Your task to perform on an android device: toggle translation in the chrome app Image 0: 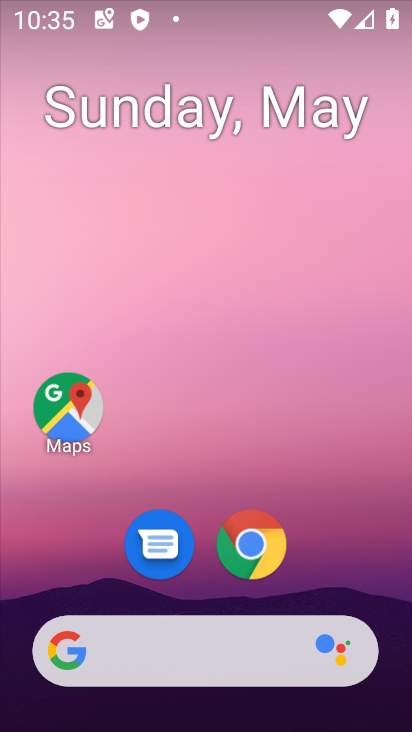
Step 0: drag from (390, 540) to (397, 220)
Your task to perform on an android device: toggle translation in the chrome app Image 1: 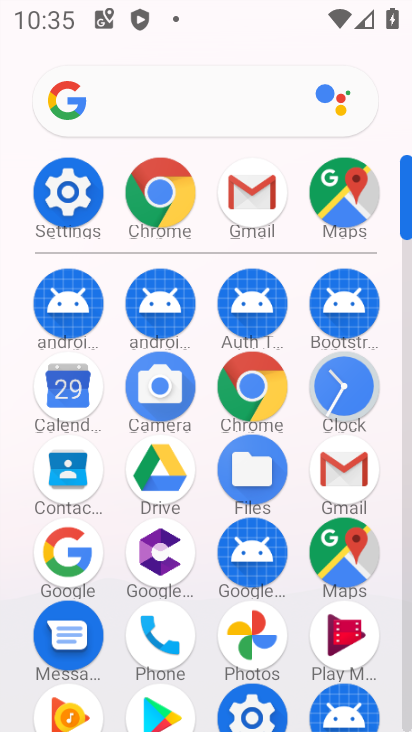
Step 1: click (273, 390)
Your task to perform on an android device: toggle translation in the chrome app Image 2: 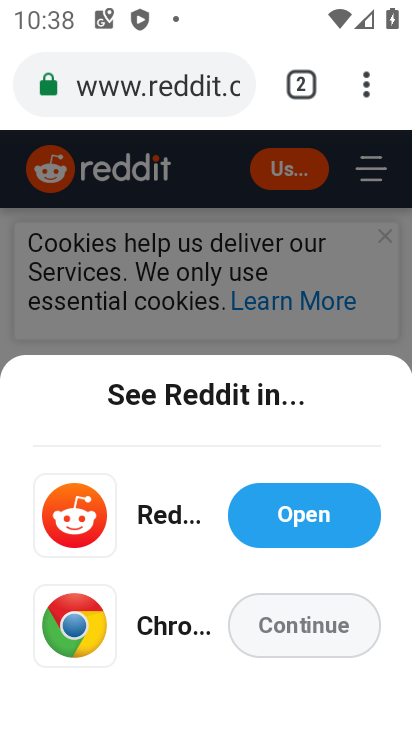
Step 2: press home button
Your task to perform on an android device: toggle translation in the chrome app Image 3: 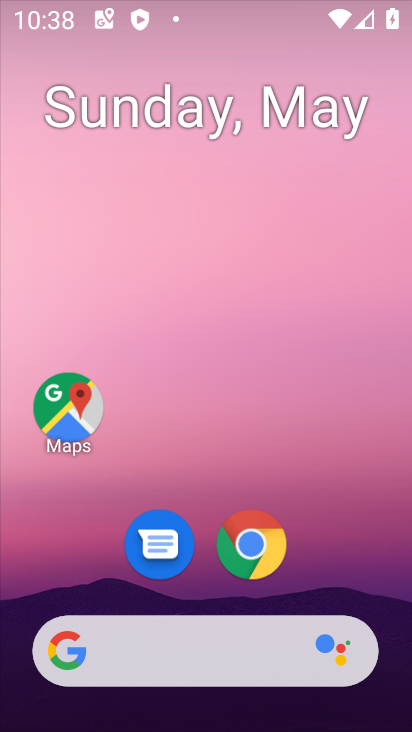
Step 3: drag from (399, 526) to (384, 5)
Your task to perform on an android device: toggle translation in the chrome app Image 4: 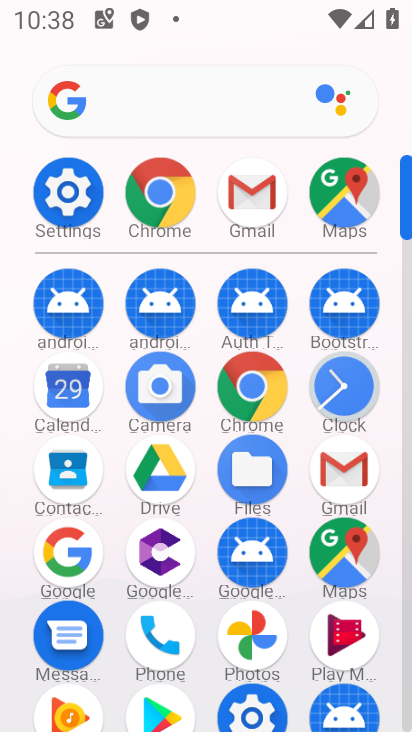
Step 4: click (176, 202)
Your task to perform on an android device: toggle translation in the chrome app Image 5: 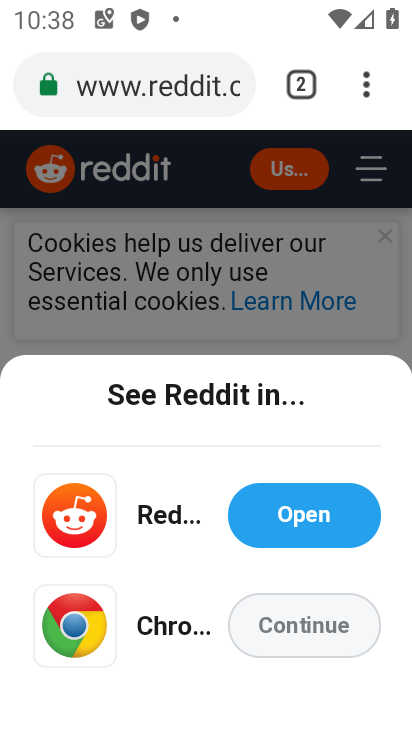
Step 5: drag from (373, 88) to (231, 582)
Your task to perform on an android device: toggle translation in the chrome app Image 6: 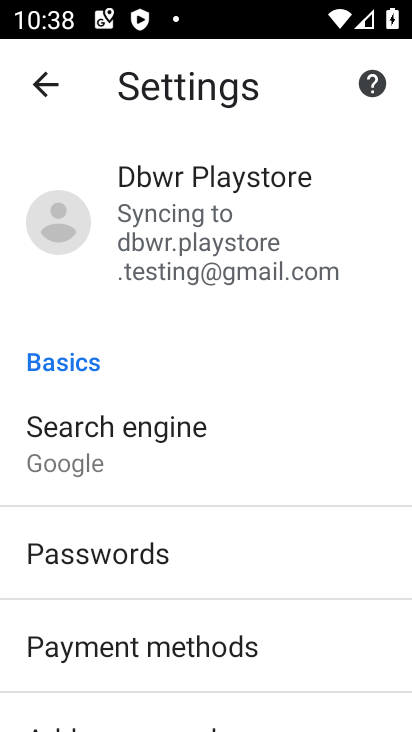
Step 6: drag from (285, 601) to (256, 15)
Your task to perform on an android device: toggle translation in the chrome app Image 7: 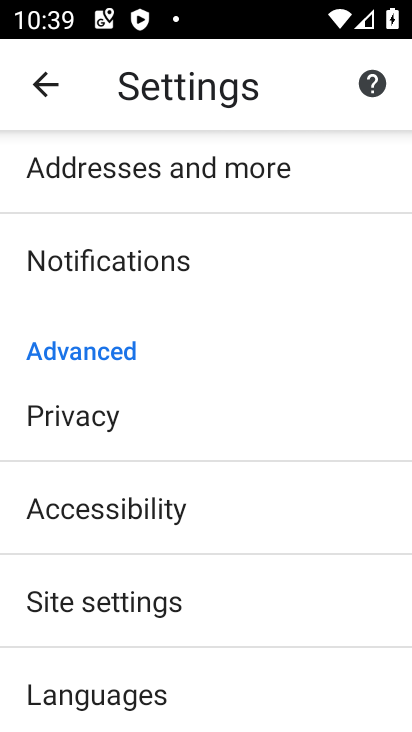
Step 7: drag from (249, 611) to (234, 152)
Your task to perform on an android device: toggle translation in the chrome app Image 8: 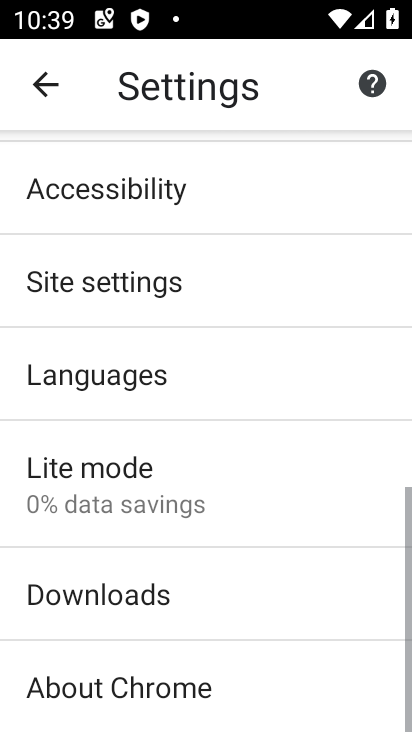
Step 8: click (201, 388)
Your task to perform on an android device: toggle translation in the chrome app Image 9: 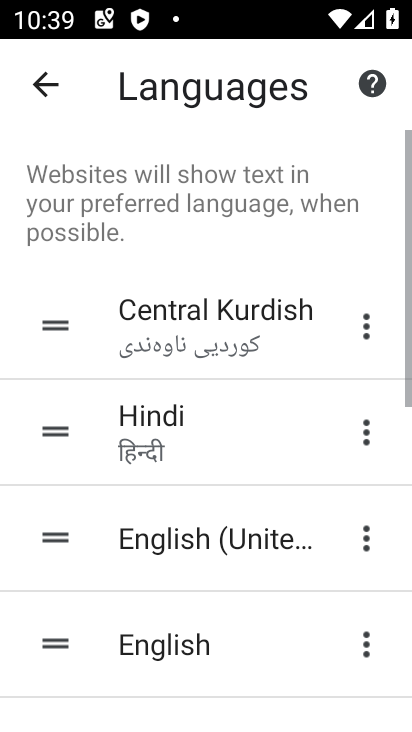
Step 9: drag from (242, 552) to (222, 159)
Your task to perform on an android device: toggle translation in the chrome app Image 10: 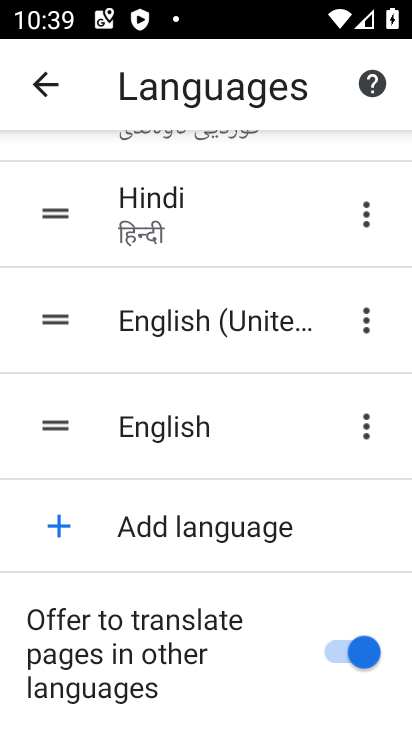
Step 10: click (346, 645)
Your task to perform on an android device: toggle translation in the chrome app Image 11: 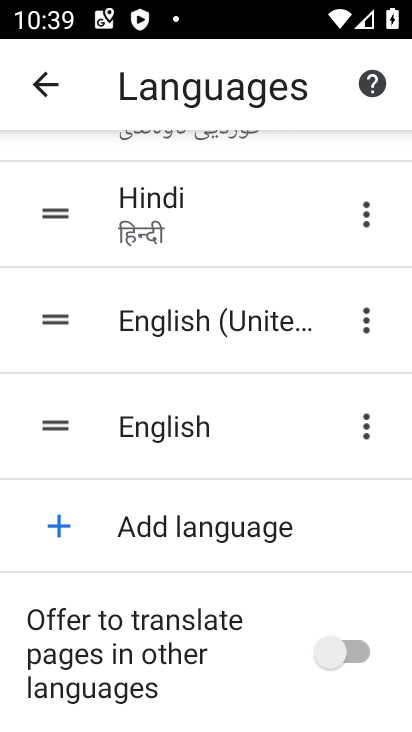
Step 11: task complete